Your task to perform on an android device: create a new album in the google photos Image 0: 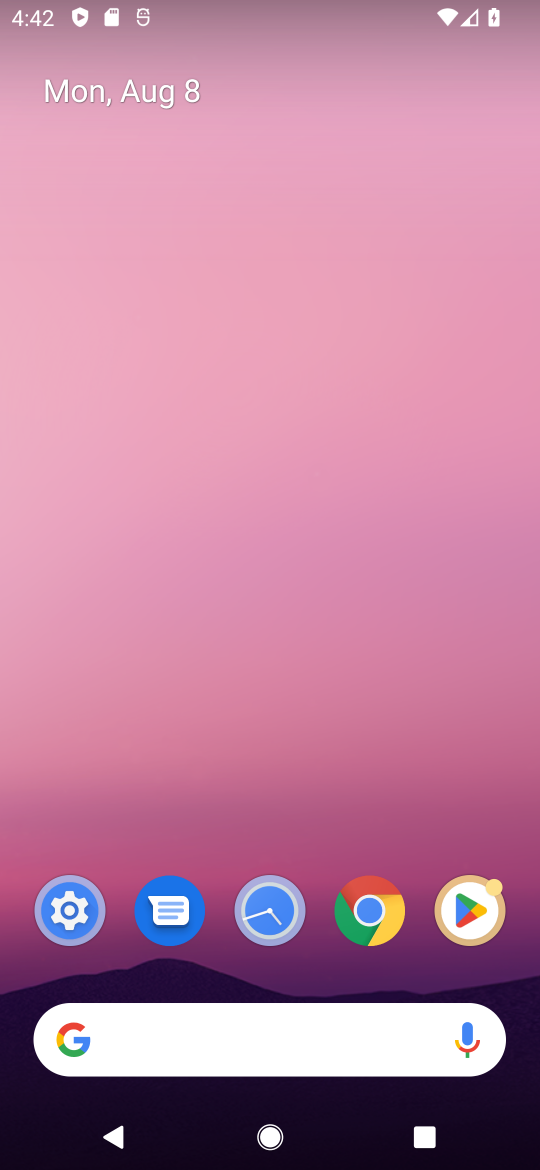
Step 0: drag from (227, 1064) to (280, 561)
Your task to perform on an android device: create a new album in the google photos Image 1: 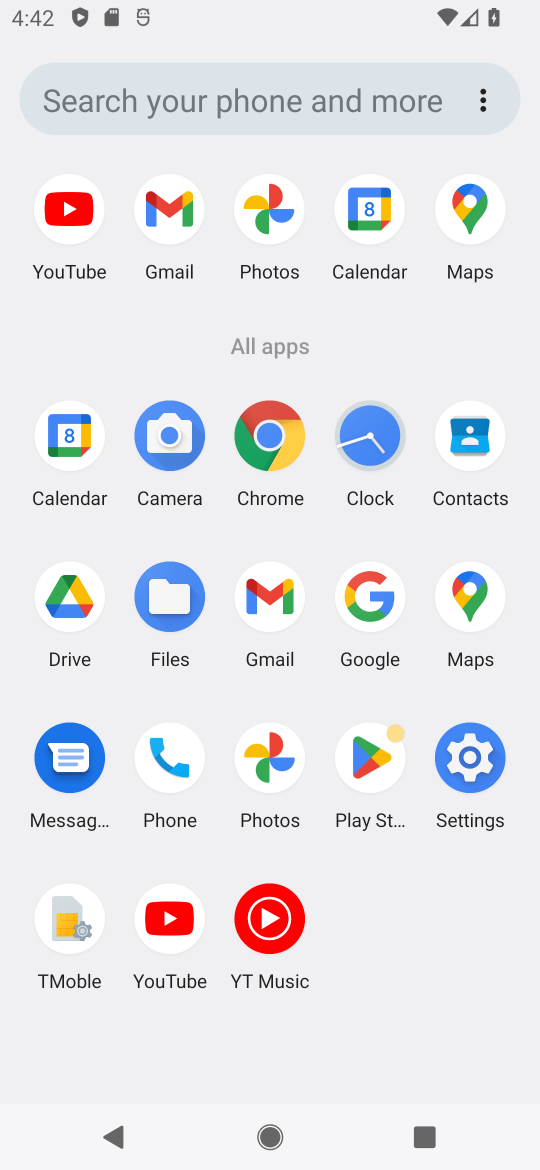
Step 1: click (270, 212)
Your task to perform on an android device: create a new album in the google photos Image 2: 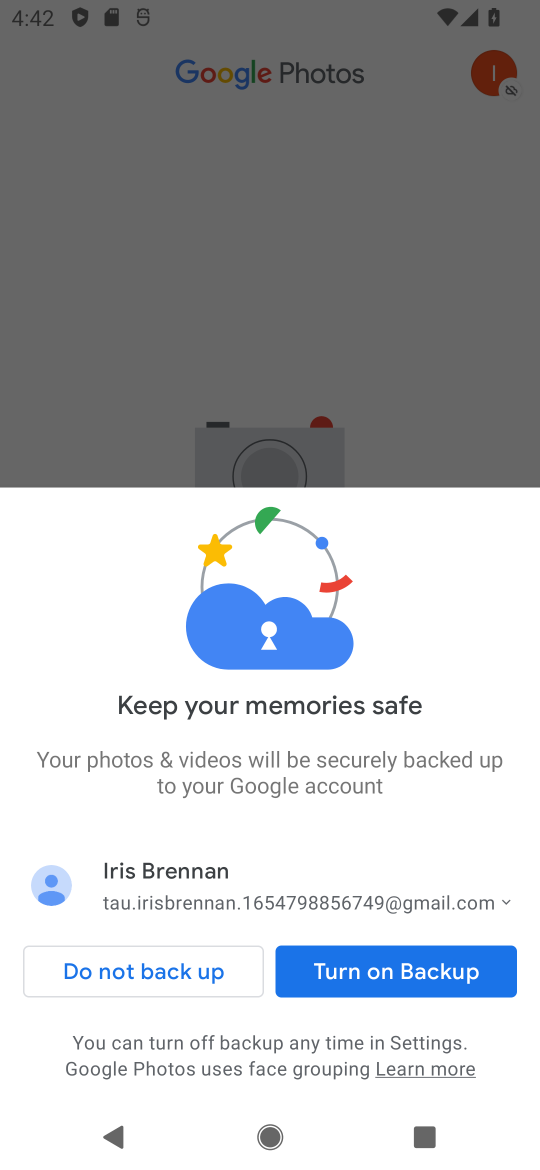
Step 2: click (367, 972)
Your task to perform on an android device: create a new album in the google photos Image 3: 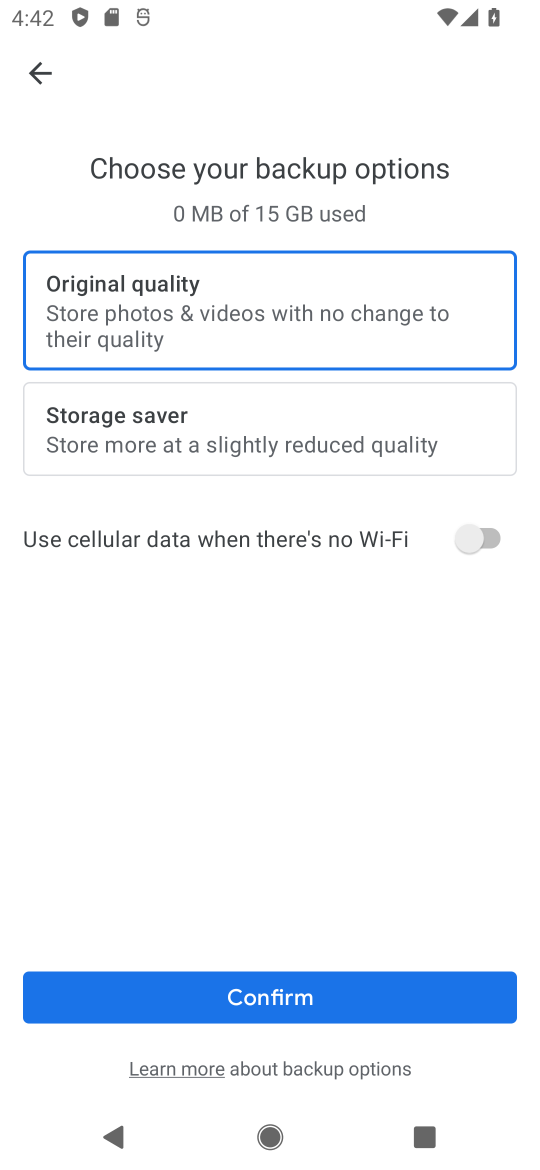
Step 3: click (324, 1003)
Your task to perform on an android device: create a new album in the google photos Image 4: 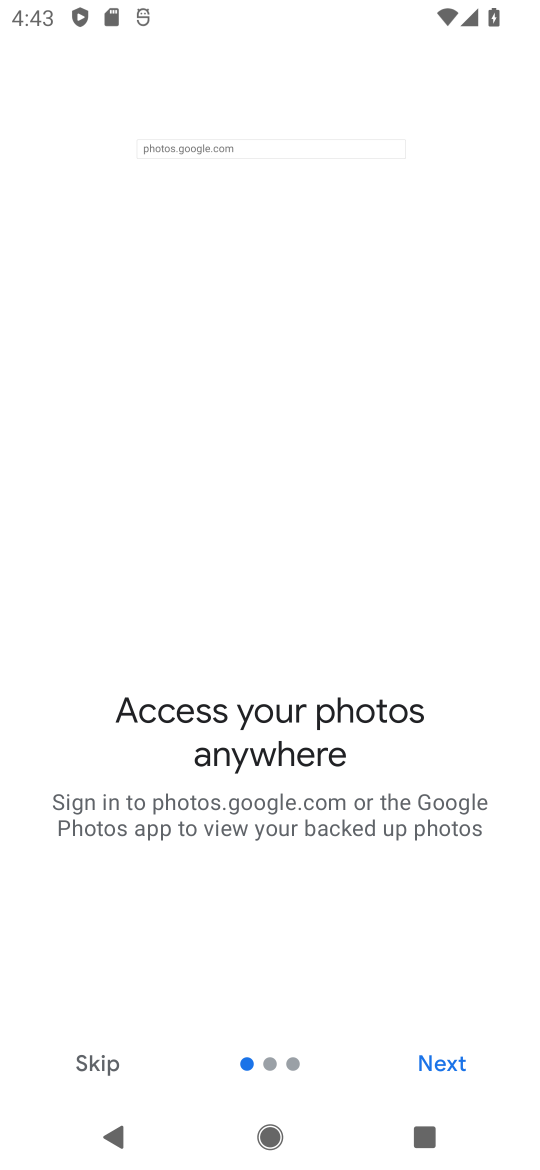
Step 4: click (106, 1071)
Your task to perform on an android device: create a new album in the google photos Image 5: 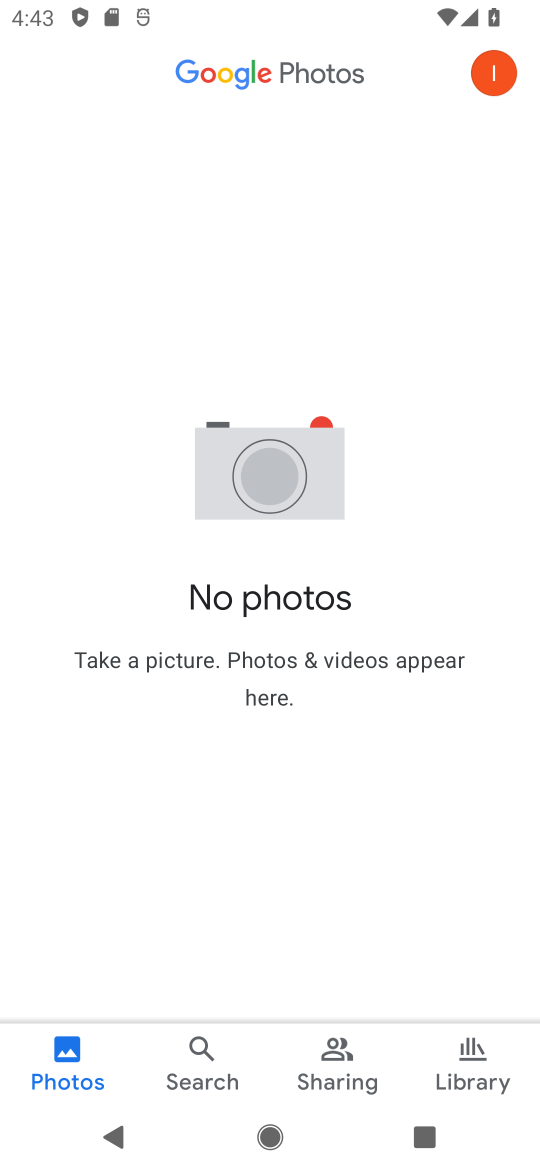
Step 5: click (517, 57)
Your task to perform on an android device: create a new album in the google photos Image 6: 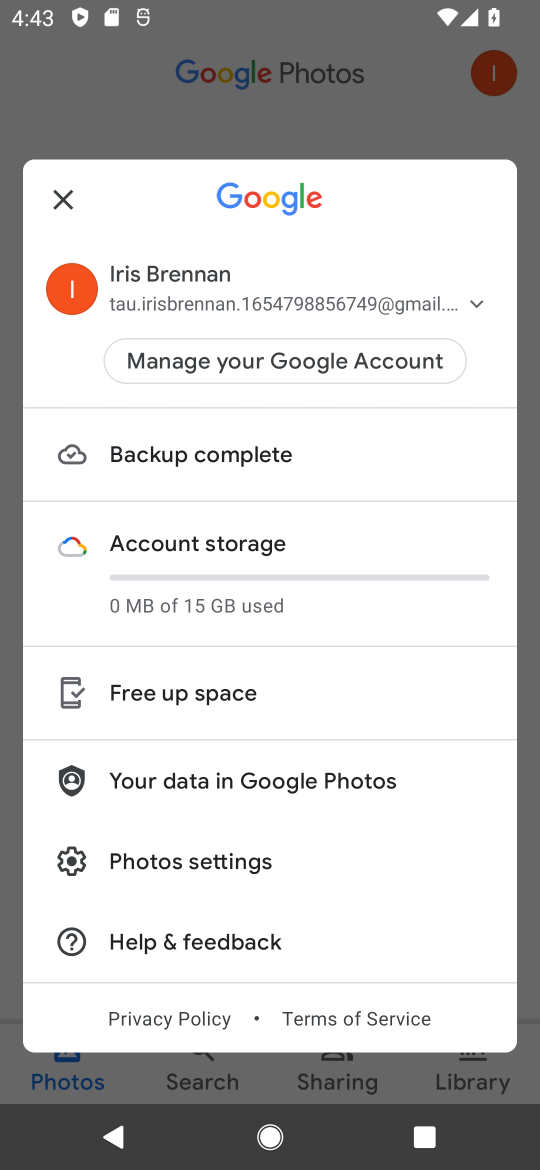
Step 6: click (56, 180)
Your task to perform on an android device: create a new album in the google photos Image 7: 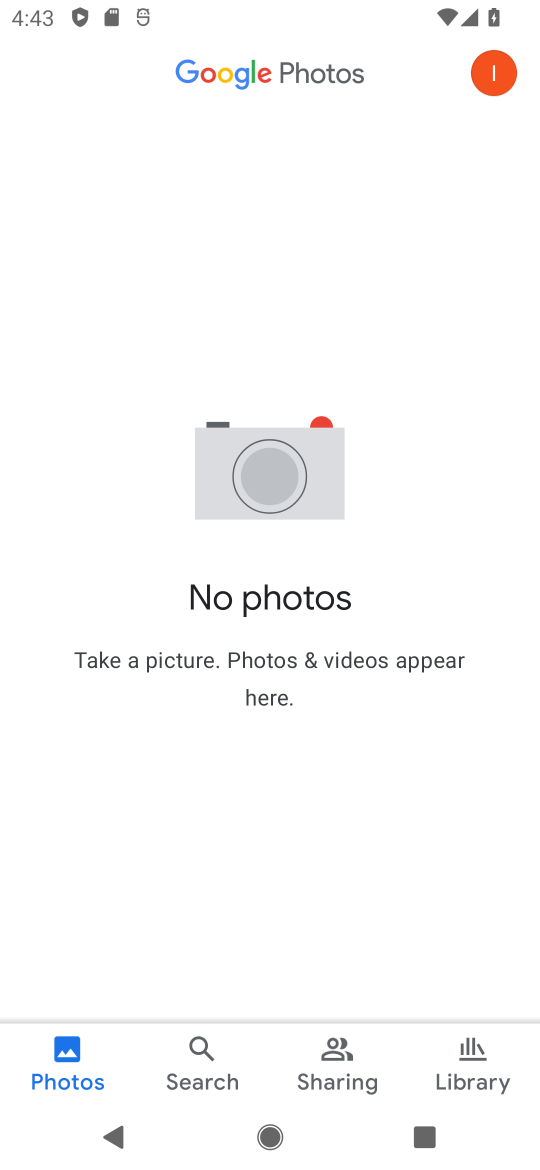
Step 7: click (471, 1059)
Your task to perform on an android device: create a new album in the google photos Image 8: 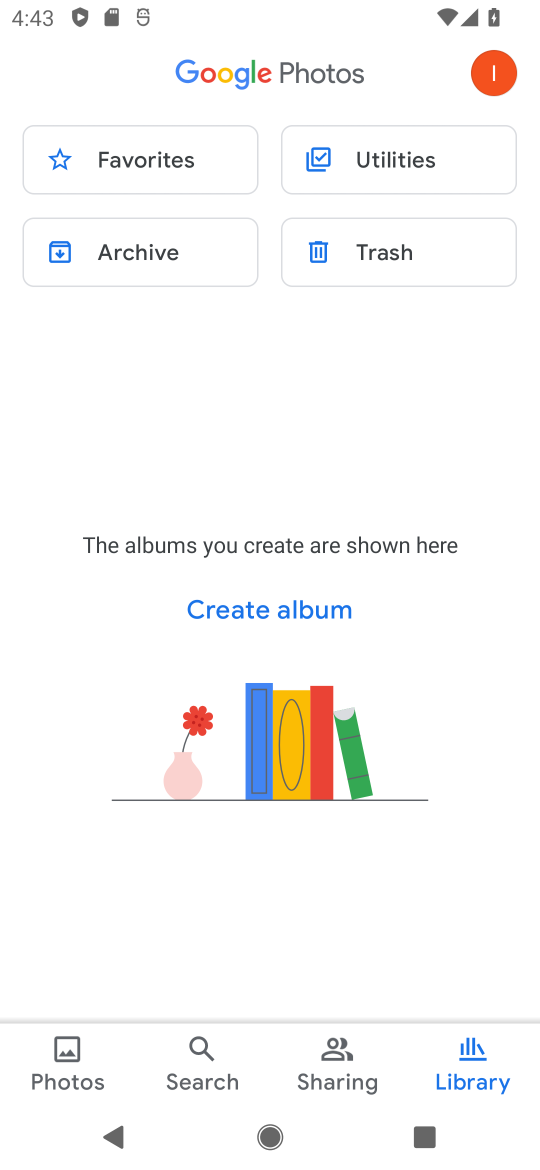
Step 8: click (329, 615)
Your task to perform on an android device: create a new album in the google photos Image 9: 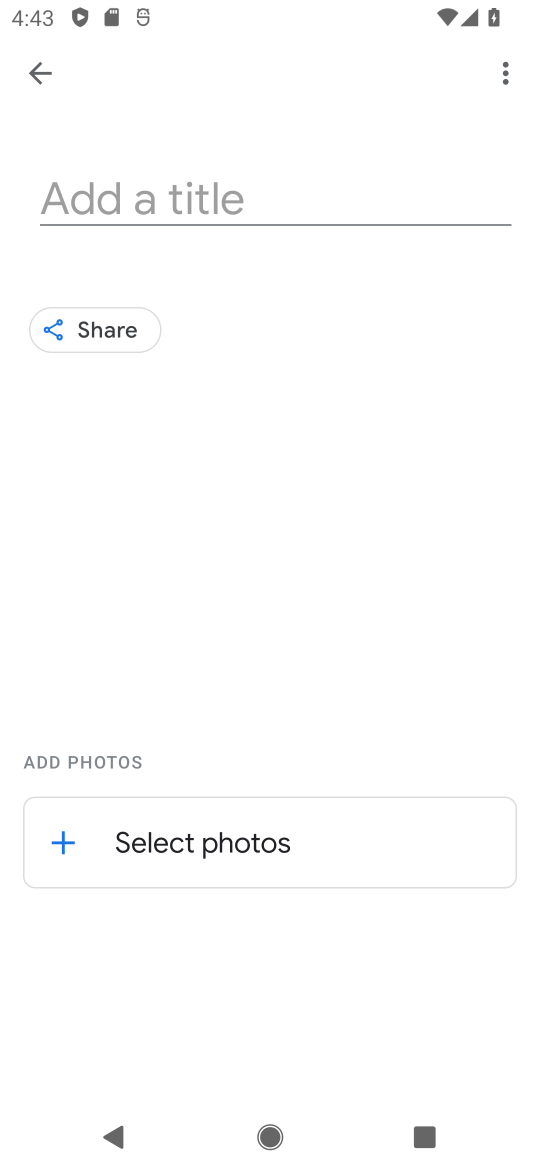
Step 9: click (316, 195)
Your task to perform on an android device: create a new album in the google photos Image 10: 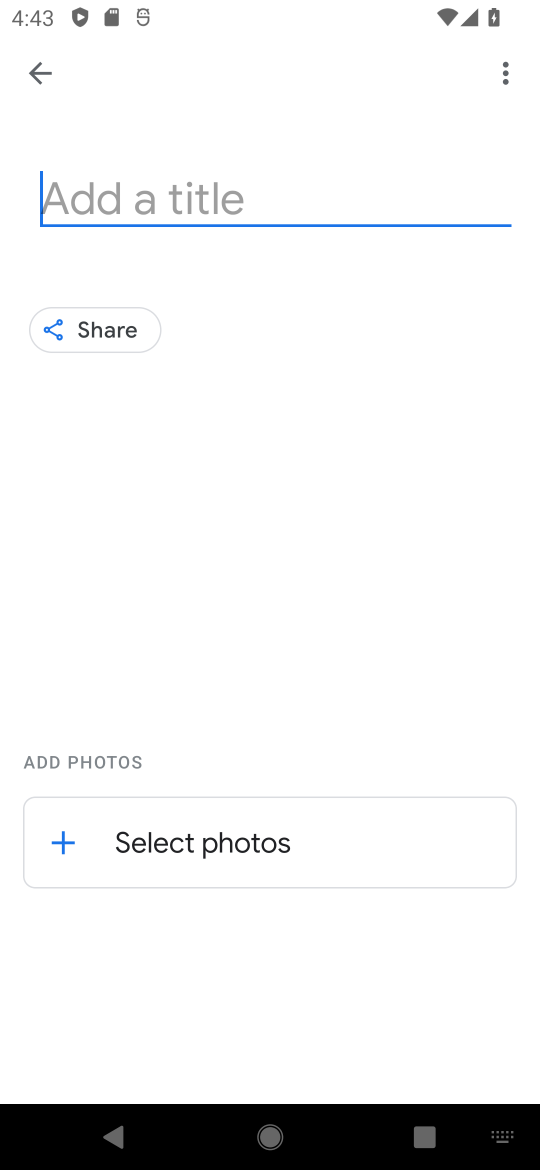
Step 10: type "Yo Yo"
Your task to perform on an android device: create a new album in the google photos Image 11: 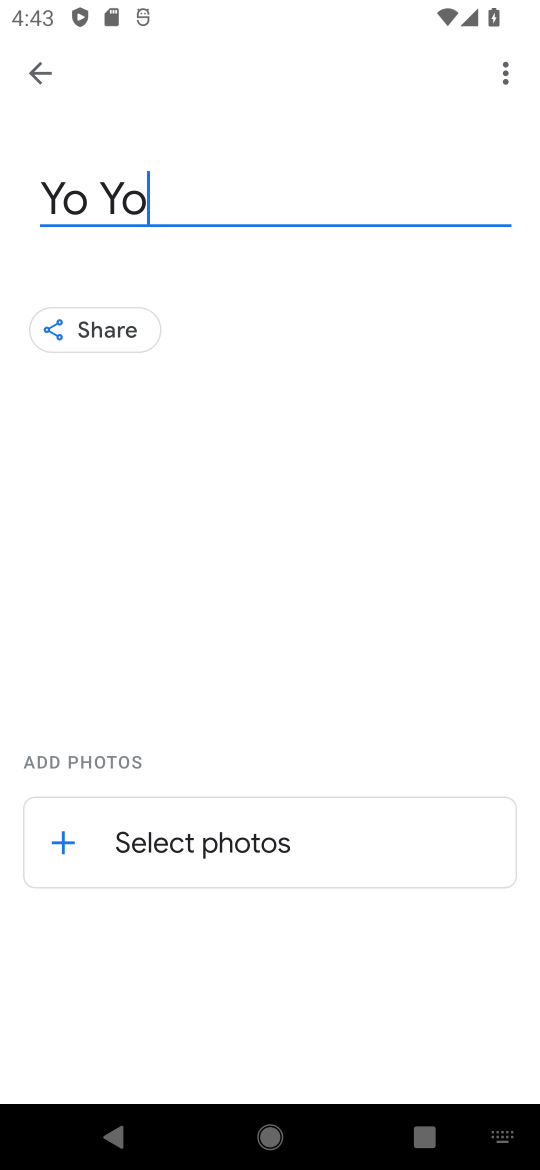
Step 11: click (256, 838)
Your task to perform on an android device: create a new album in the google photos Image 12: 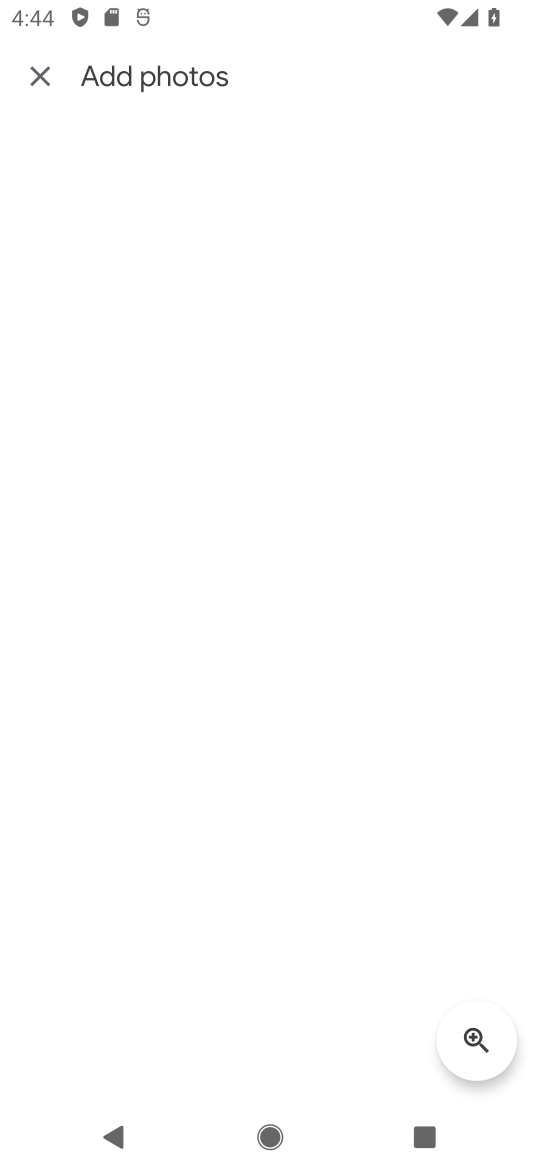
Step 12: task complete